Your task to perform on an android device: change keyboard looks Image 0: 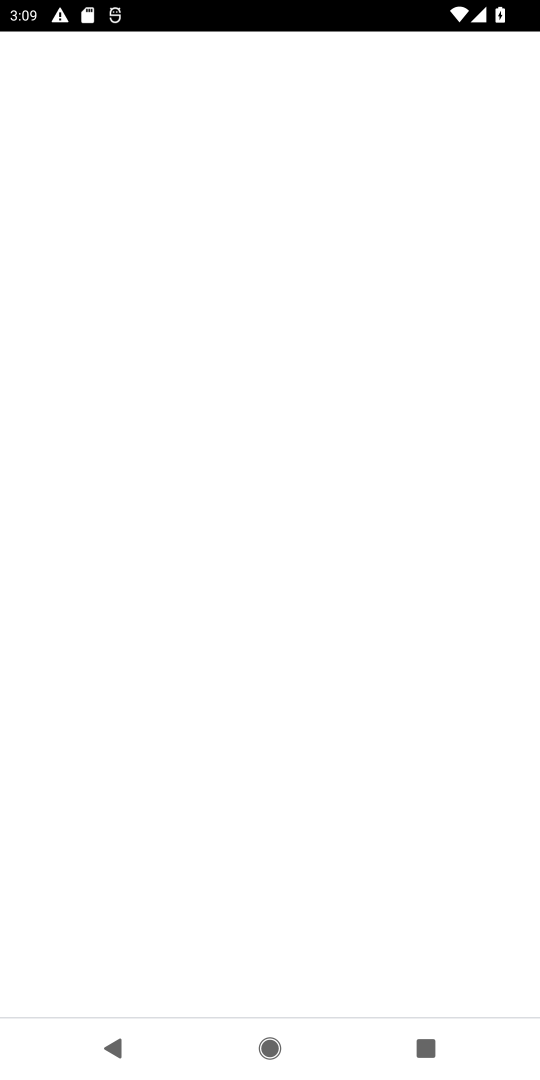
Step 0: press home button
Your task to perform on an android device: change keyboard looks Image 1: 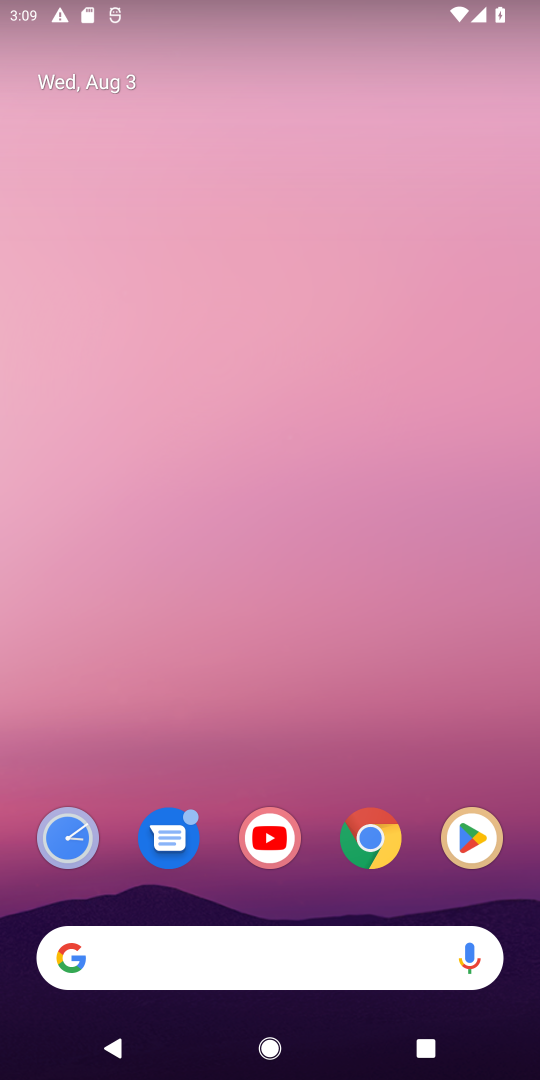
Step 1: click (211, 892)
Your task to perform on an android device: change keyboard looks Image 2: 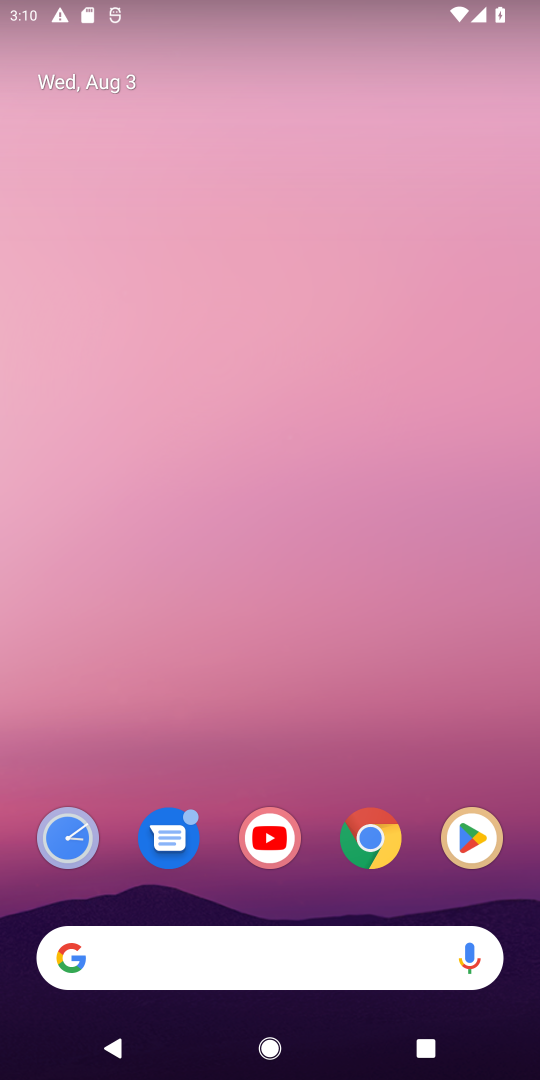
Step 2: drag from (261, 154) to (301, 59)
Your task to perform on an android device: change keyboard looks Image 3: 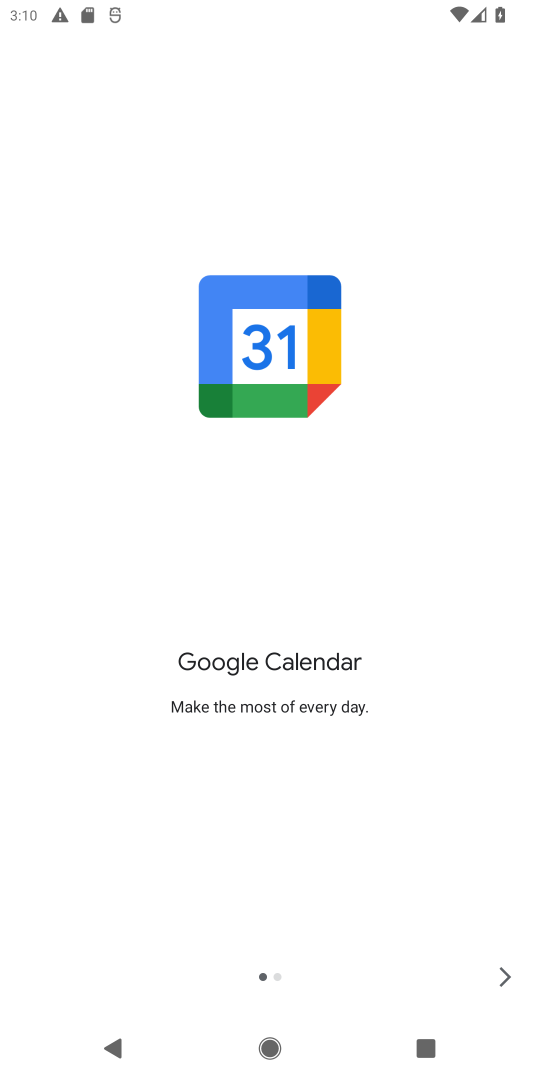
Step 3: press home button
Your task to perform on an android device: change keyboard looks Image 4: 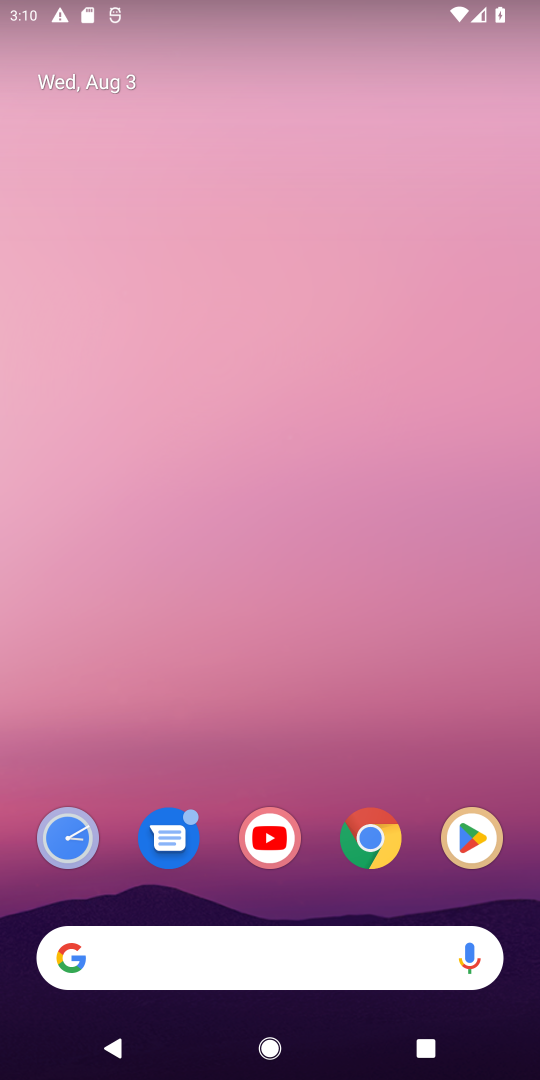
Step 4: drag from (231, 885) to (323, 10)
Your task to perform on an android device: change keyboard looks Image 5: 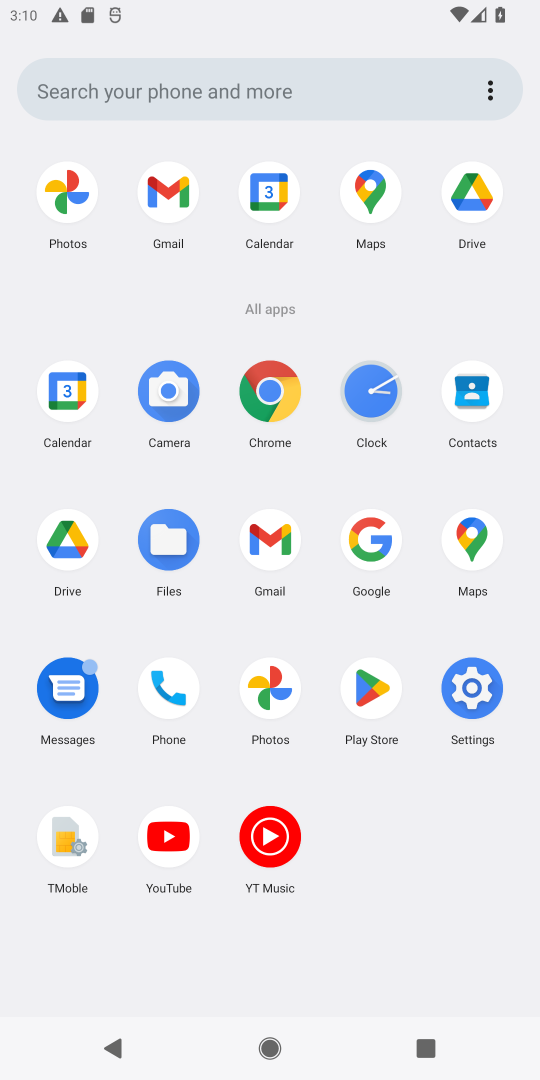
Step 5: click (470, 695)
Your task to perform on an android device: change keyboard looks Image 6: 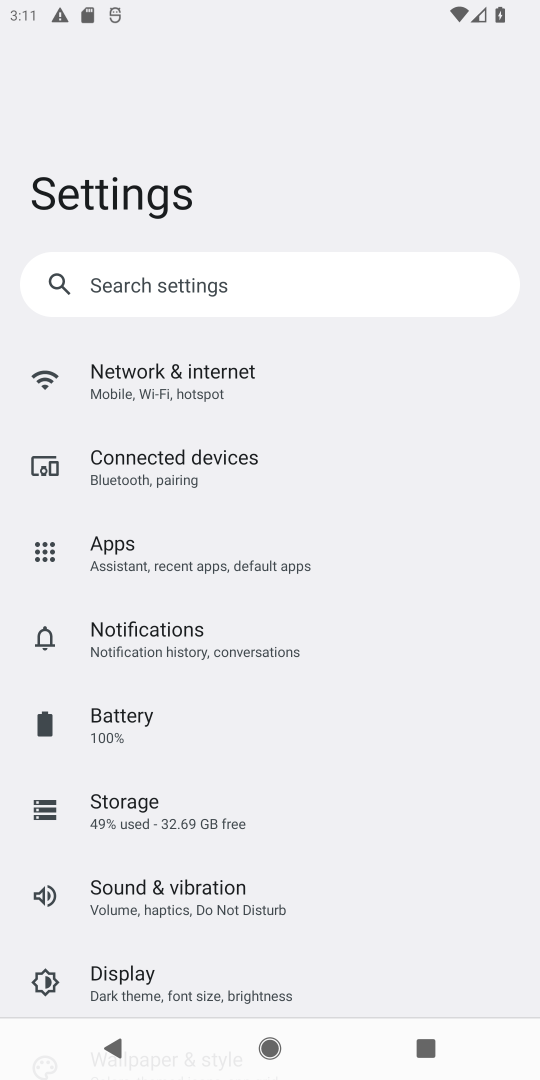
Step 6: drag from (127, 914) to (319, 263)
Your task to perform on an android device: change keyboard looks Image 7: 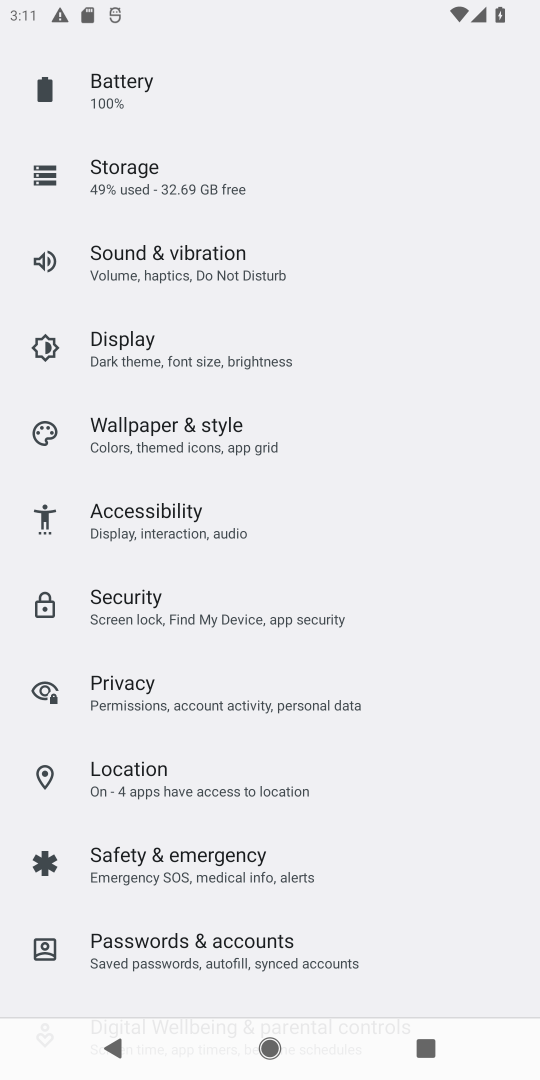
Step 7: drag from (143, 840) to (211, 491)
Your task to perform on an android device: change keyboard looks Image 8: 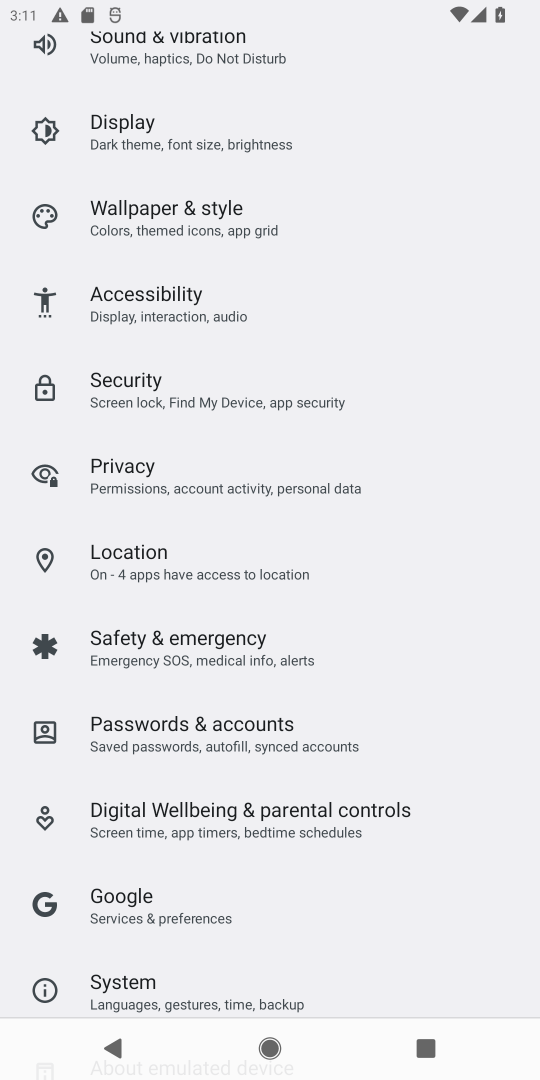
Step 8: click (114, 983)
Your task to perform on an android device: change keyboard looks Image 9: 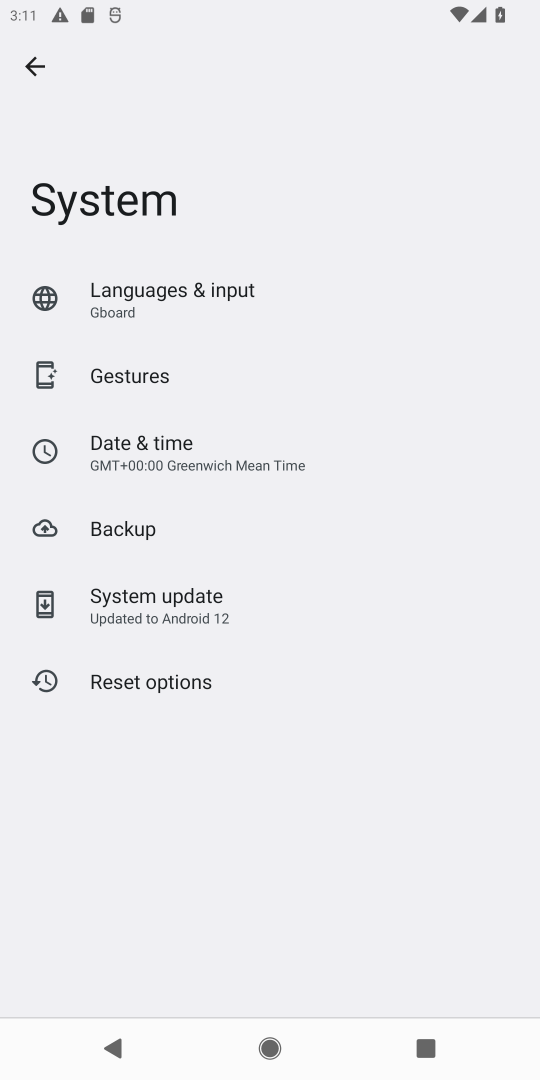
Step 9: click (142, 298)
Your task to perform on an android device: change keyboard looks Image 10: 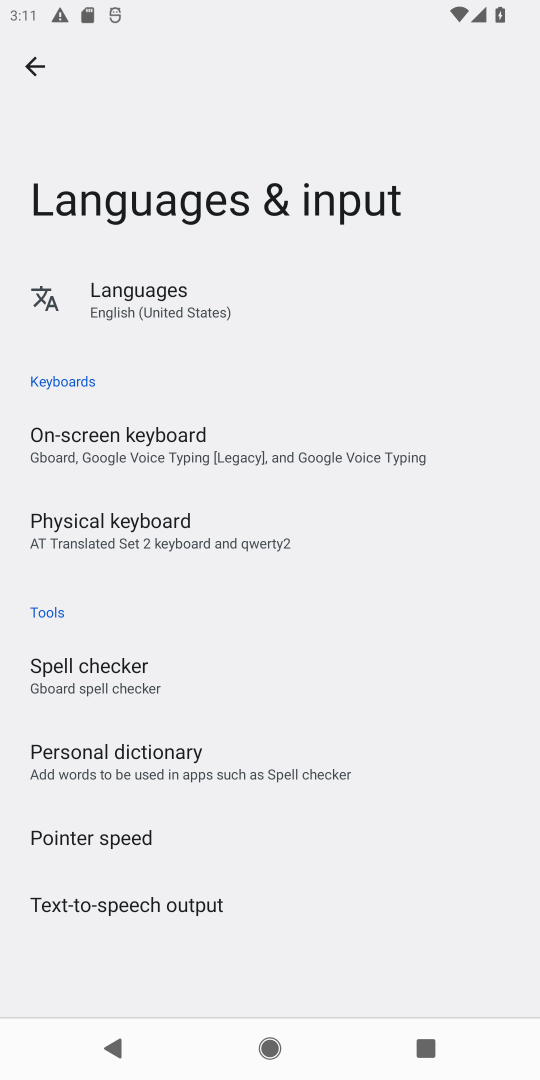
Step 10: click (137, 444)
Your task to perform on an android device: change keyboard looks Image 11: 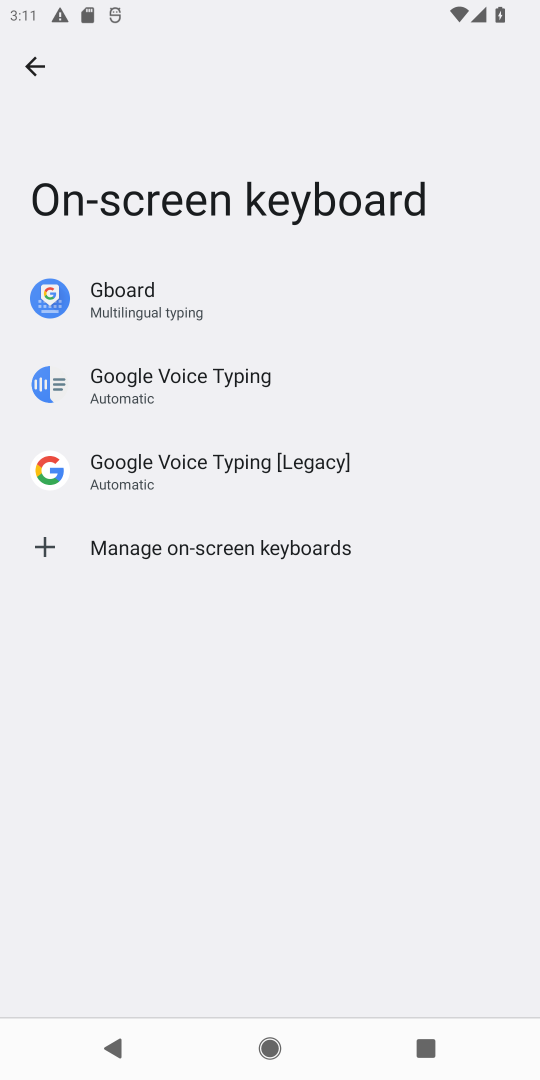
Step 11: click (146, 301)
Your task to perform on an android device: change keyboard looks Image 12: 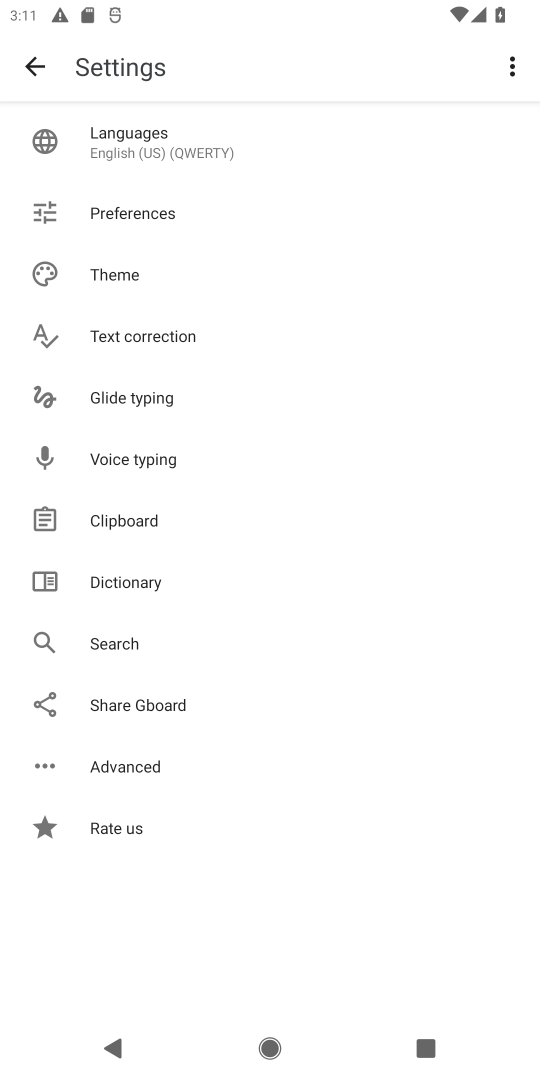
Step 12: click (123, 272)
Your task to perform on an android device: change keyboard looks Image 13: 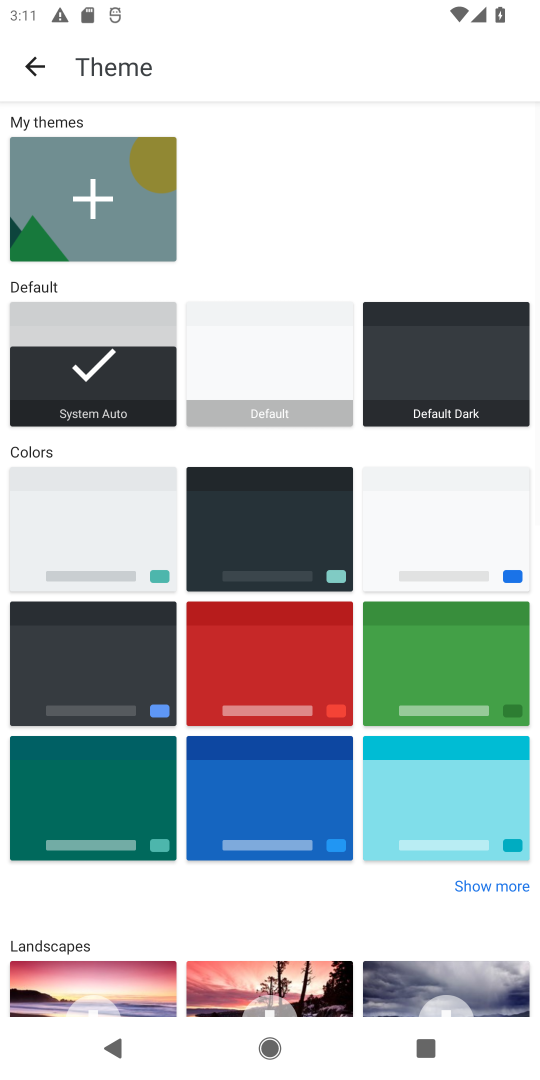
Step 13: click (257, 360)
Your task to perform on an android device: change keyboard looks Image 14: 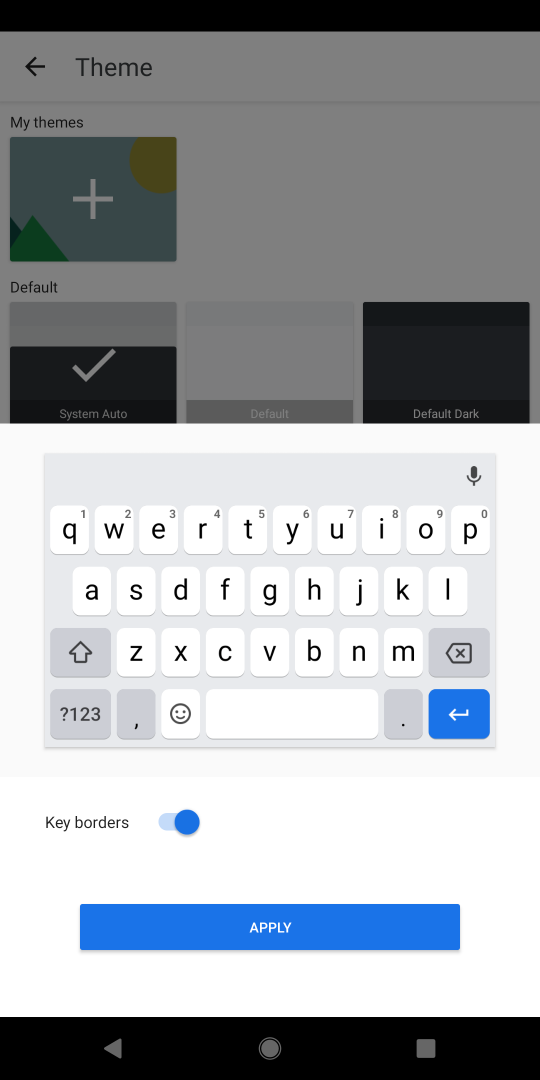
Step 14: click (273, 914)
Your task to perform on an android device: change keyboard looks Image 15: 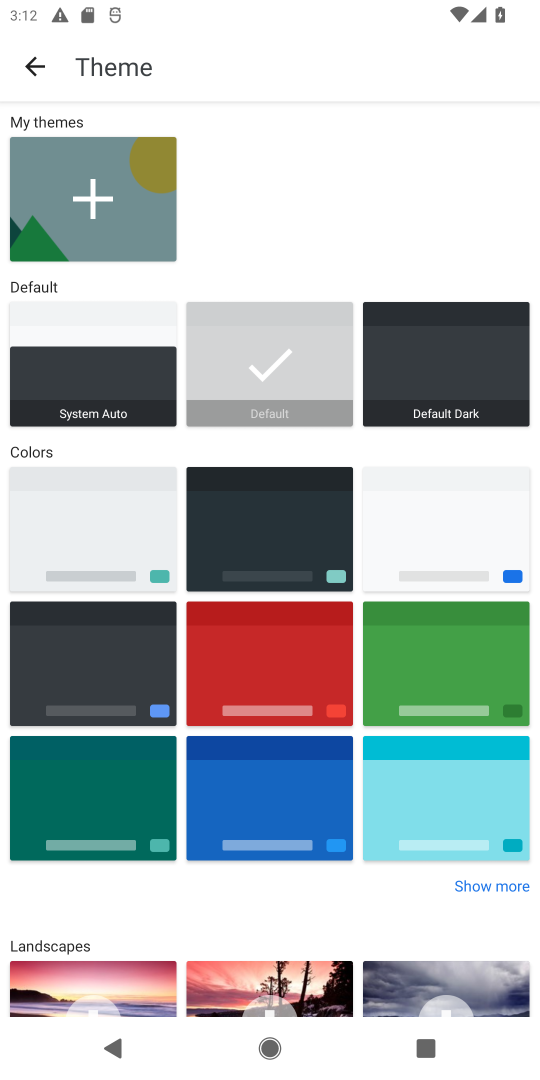
Step 15: task complete